Your task to perform on an android device: Show me popular games on the Play Store Image 0: 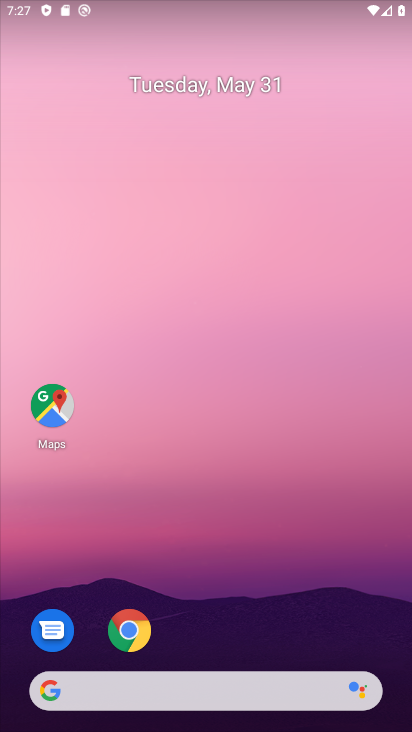
Step 0: drag from (256, 636) to (231, 128)
Your task to perform on an android device: Show me popular games on the Play Store Image 1: 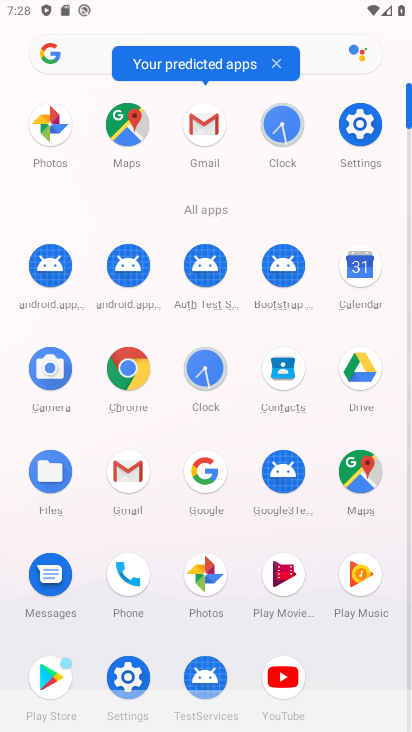
Step 1: click (50, 680)
Your task to perform on an android device: Show me popular games on the Play Store Image 2: 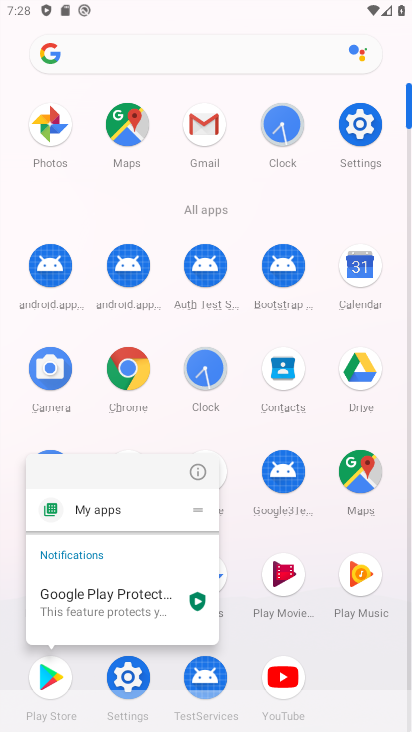
Step 2: click (50, 680)
Your task to perform on an android device: Show me popular games on the Play Store Image 3: 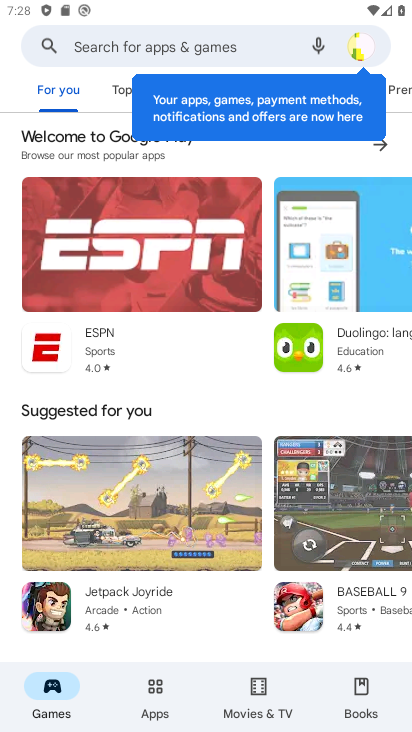
Step 3: click (249, 52)
Your task to perform on an android device: Show me popular games on the Play Store Image 4: 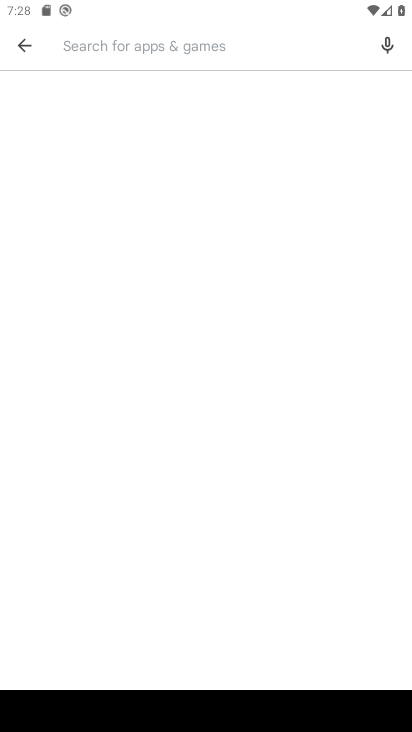
Step 4: type "popular games"
Your task to perform on an android device: Show me popular games on the Play Store Image 5: 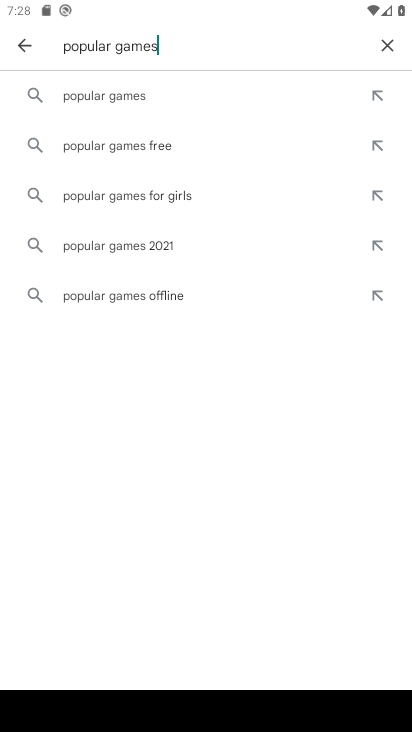
Step 5: click (106, 95)
Your task to perform on an android device: Show me popular games on the Play Store Image 6: 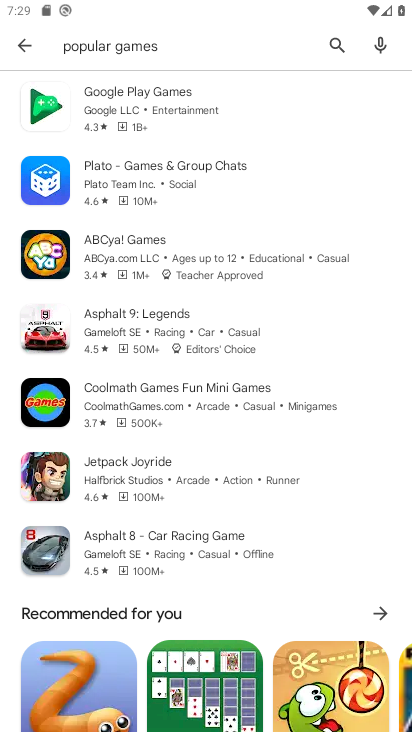
Step 6: task complete